Your task to perform on an android device: turn pop-ups on in chrome Image 0: 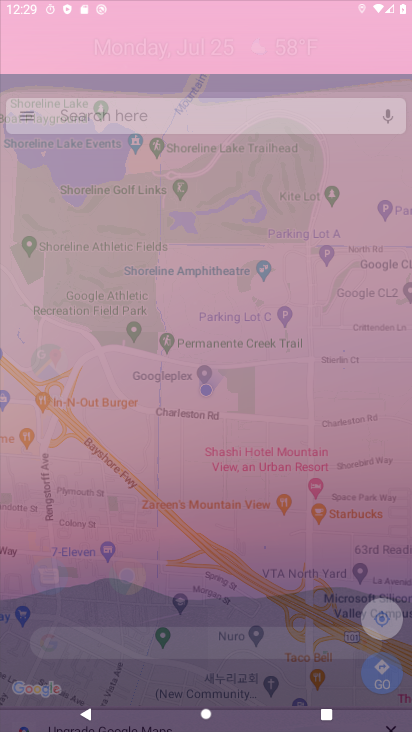
Step 0: drag from (129, 122) to (104, 51)
Your task to perform on an android device: turn pop-ups on in chrome Image 1: 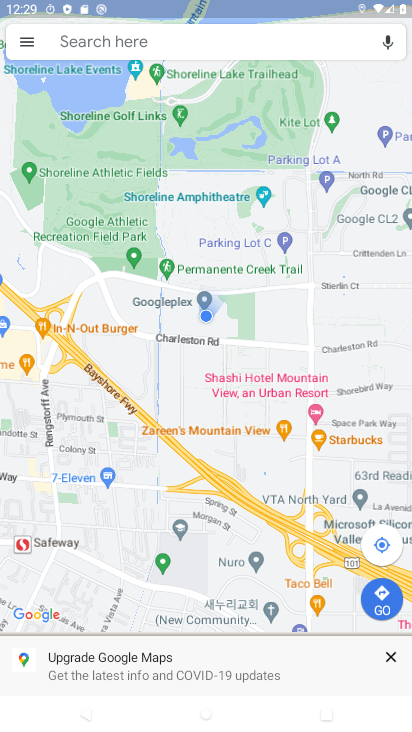
Step 1: press home button
Your task to perform on an android device: turn pop-ups on in chrome Image 2: 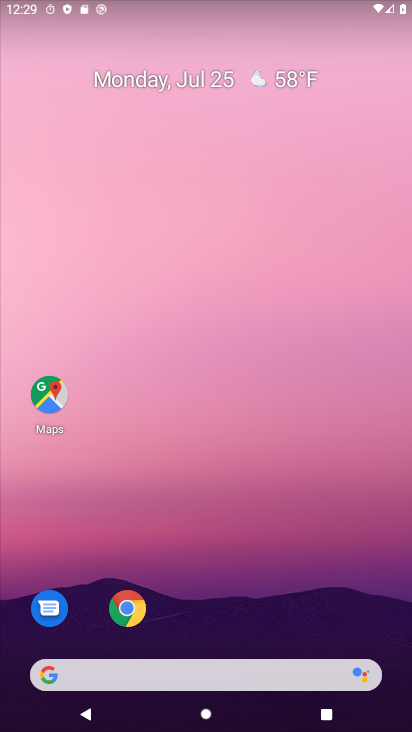
Step 2: drag from (248, 611) to (230, 146)
Your task to perform on an android device: turn pop-ups on in chrome Image 3: 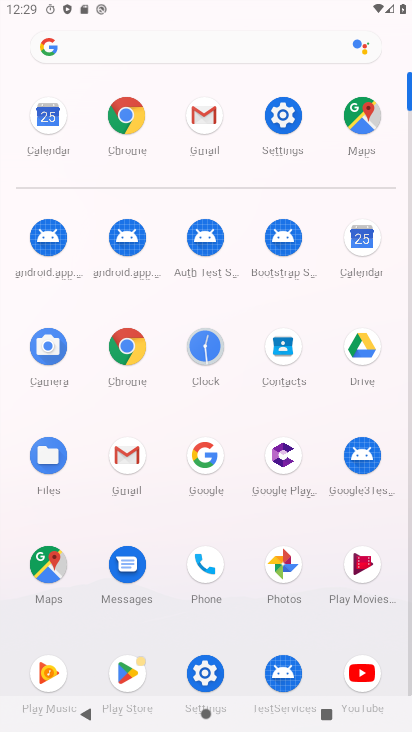
Step 3: click (122, 117)
Your task to perform on an android device: turn pop-ups on in chrome Image 4: 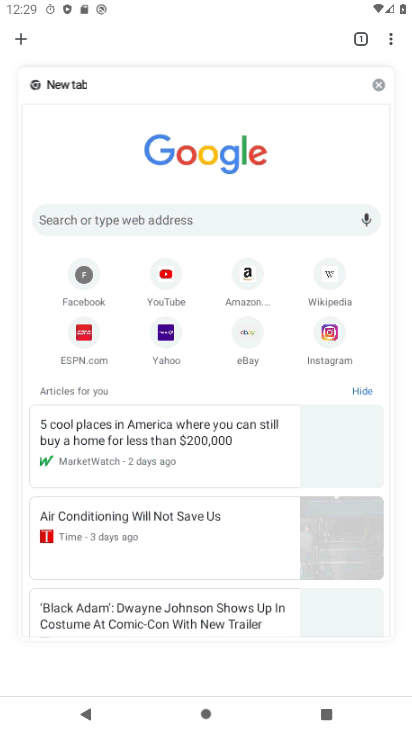
Step 4: drag from (387, 39) to (275, 146)
Your task to perform on an android device: turn pop-ups on in chrome Image 5: 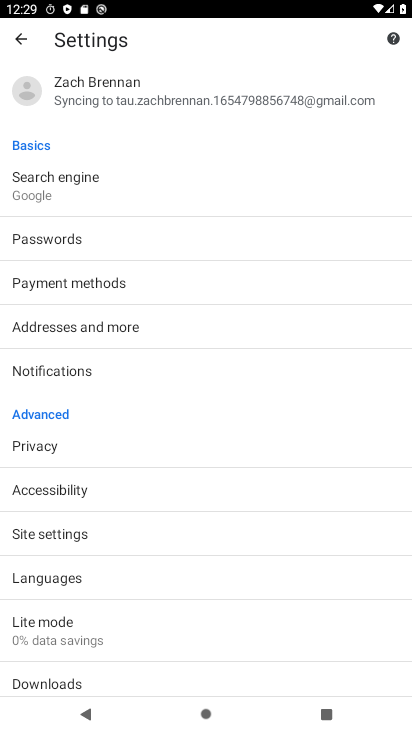
Step 5: click (86, 539)
Your task to perform on an android device: turn pop-ups on in chrome Image 6: 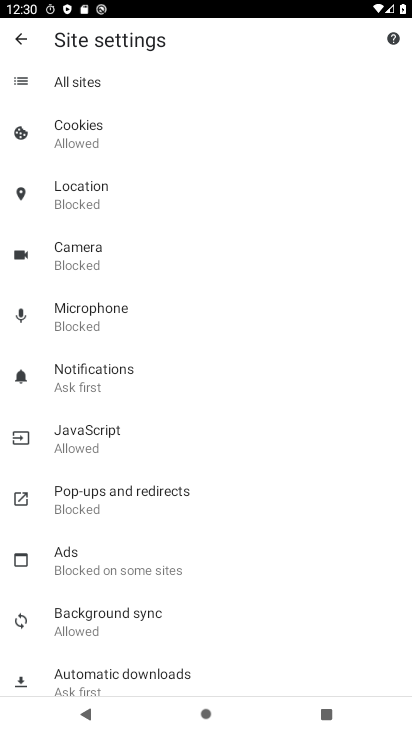
Step 6: click (105, 456)
Your task to perform on an android device: turn pop-ups on in chrome Image 7: 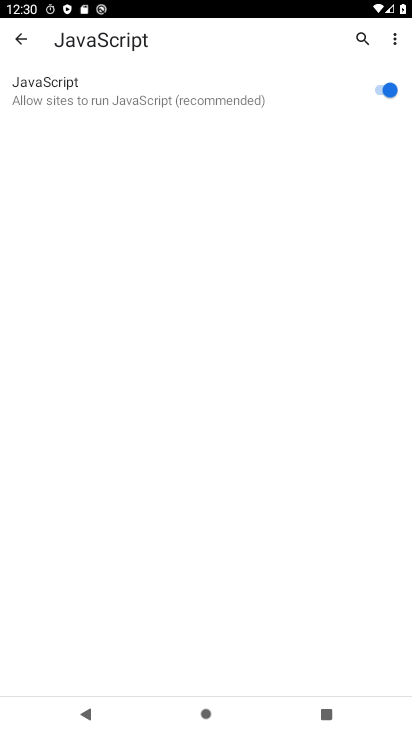
Step 7: click (23, 43)
Your task to perform on an android device: turn pop-ups on in chrome Image 8: 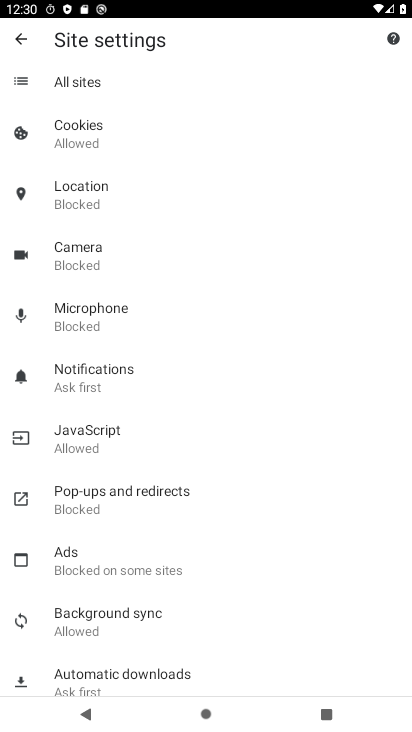
Step 8: click (137, 477)
Your task to perform on an android device: turn pop-ups on in chrome Image 9: 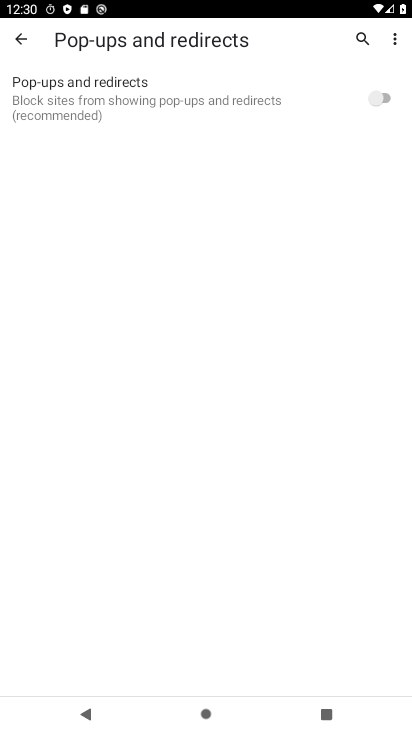
Step 9: click (388, 91)
Your task to perform on an android device: turn pop-ups on in chrome Image 10: 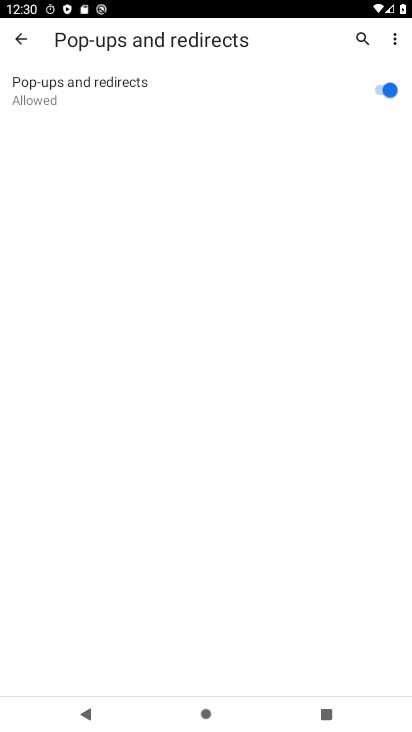
Step 10: task complete